Your task to perform on an android device: Open battery settings Image 0: 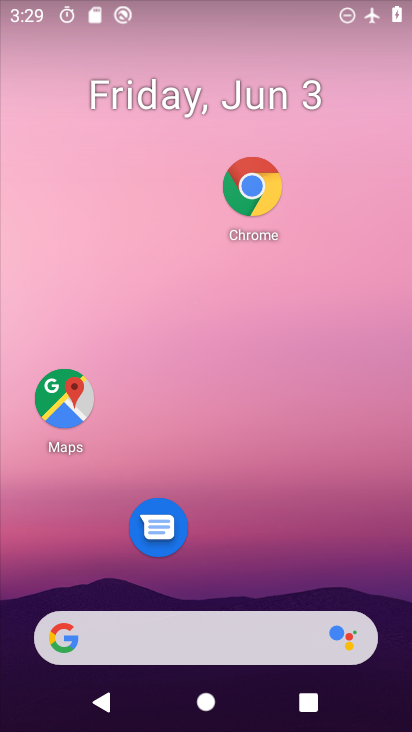
Step 0: drag from (299, 443) to (256, 173)
Your task to perform on an android device: Open battery settings Image 1: 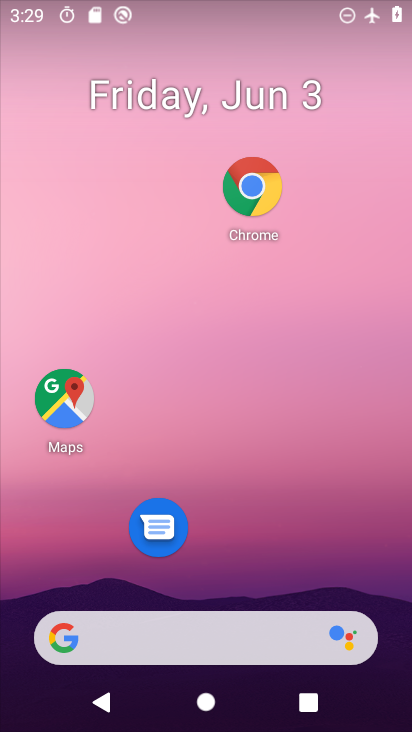
Step 1: drag from (251, 505) to (234, 115)
Your task to perform on an android device: Open battery settings Image 2: 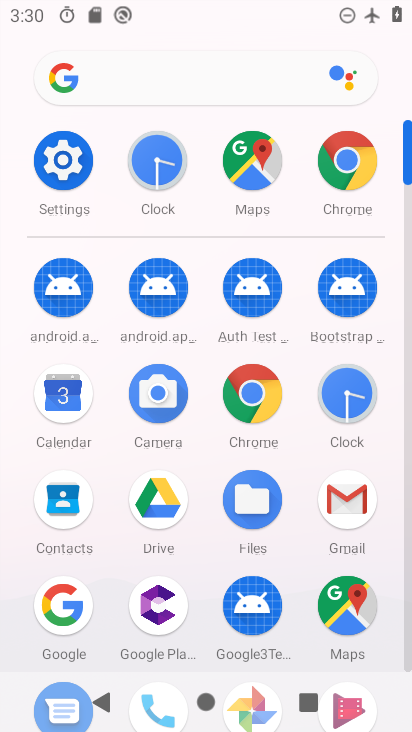
Step 2: click (77, 159)
Your task to perform on an android device: Open battery settings Image 3: 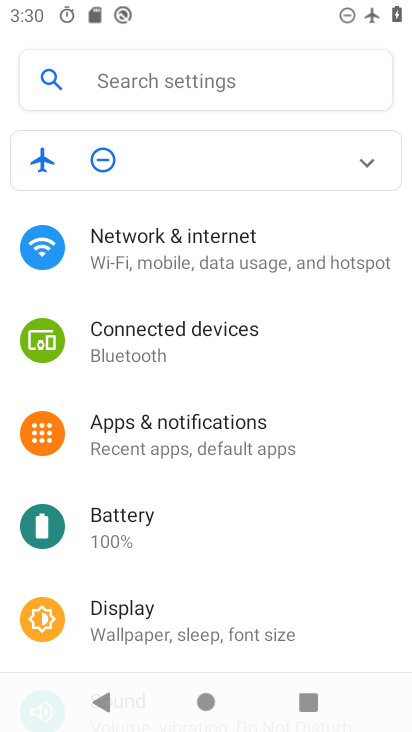
Step 3: click (172, 525)
Your task to perform on an android device: Open battery settings Image 4: 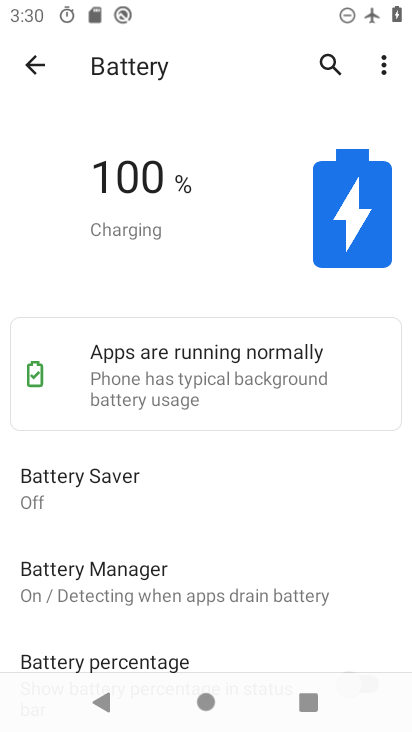
Step 4: task complete